Your task to perform on an android device: turn notification dots off Image 0: 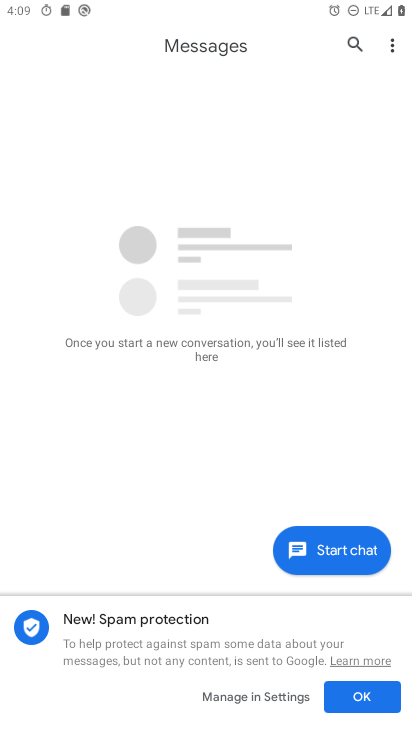
Step 0: press home button
Your task to perform on an android device: turn notification dots off Image 1: 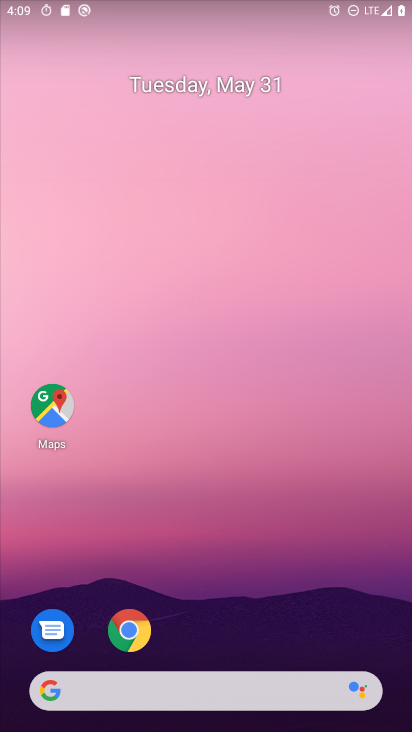
Step 1: drag from (260, 654) to (275, 11)
Your task to perform on an android device: turn notification dots off Image 2: 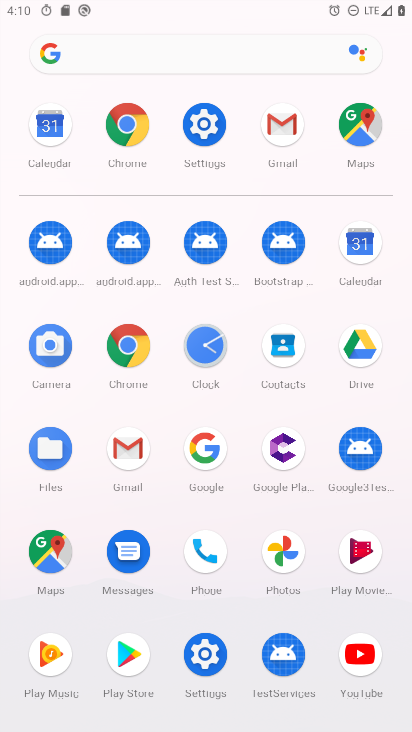
Step 2: click (204, 134)
Your task to perform on an android device: turn notification dots off Image 3: 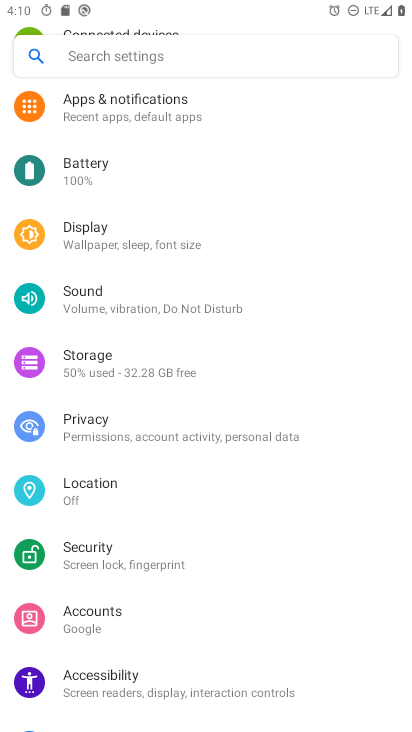
Step 3: drag from (158, 169) to (188, 615)
Your task to perform on an android device: turn notification dots off Image 4: 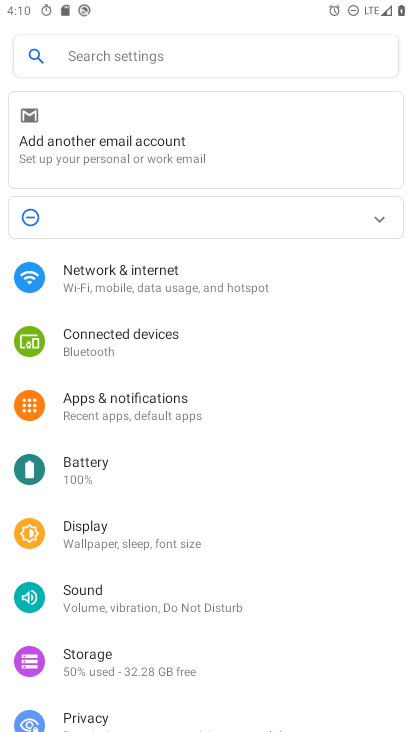
Step 4: click (170, 420)
Your task to perform on an android device: turn notification dots off Image 5: 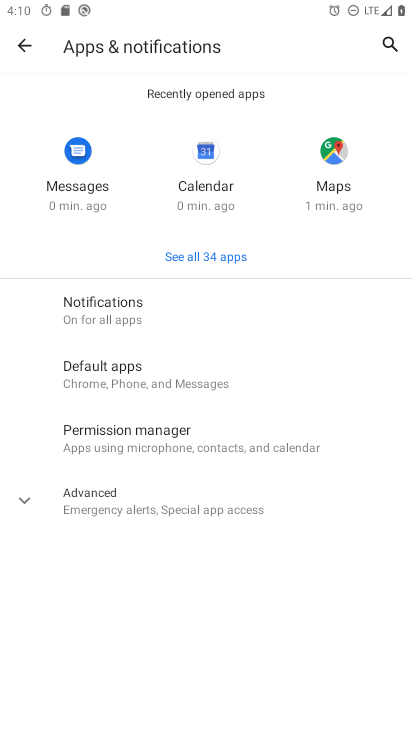
Step 5: drag from (192, 645) to (217, 339)
Your task to perform on an android device: turn notification dots off Image 6: 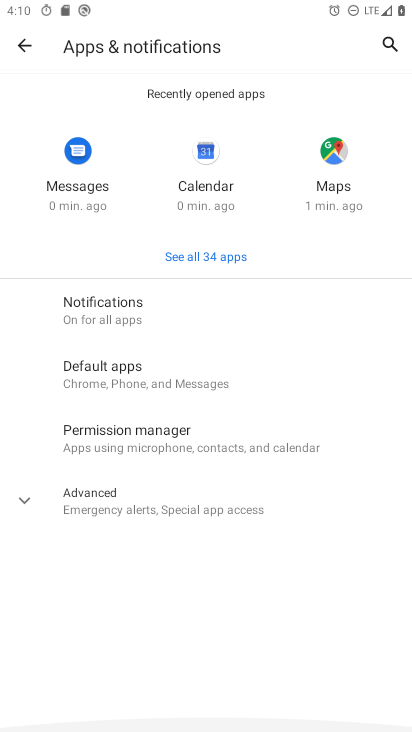
Step 6: click (147, 313)
Your task to perform on an android device: turn notification dots off Image 7: 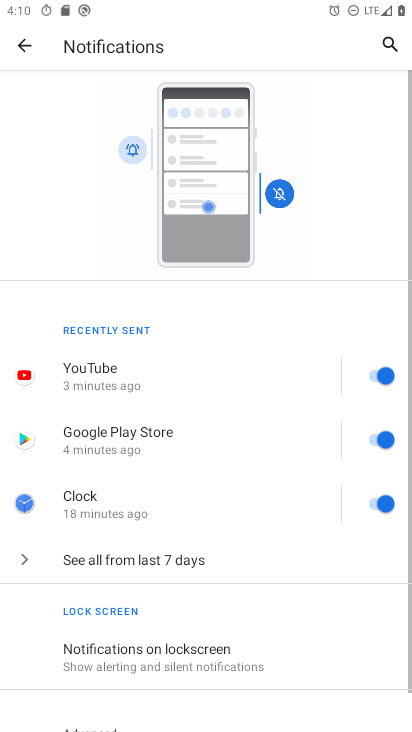
Step 7: drag from (228, 644) to (212, 152)
Your task to perform on an android device: turn notification dots off Image 8: 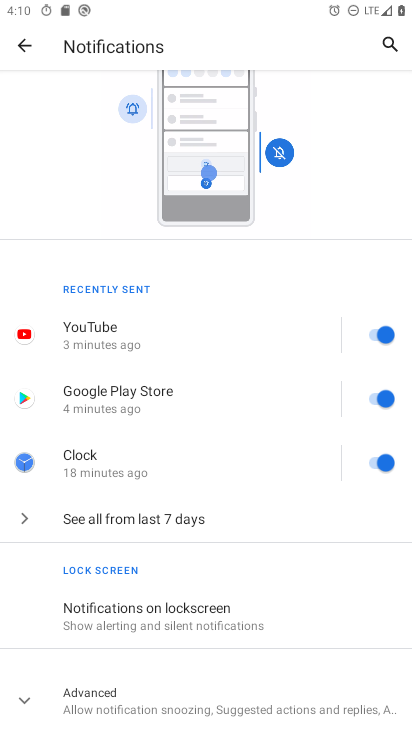
Step 8: click (162, 726)
Your task to perform on an android device: turn notification dots off Image 9: 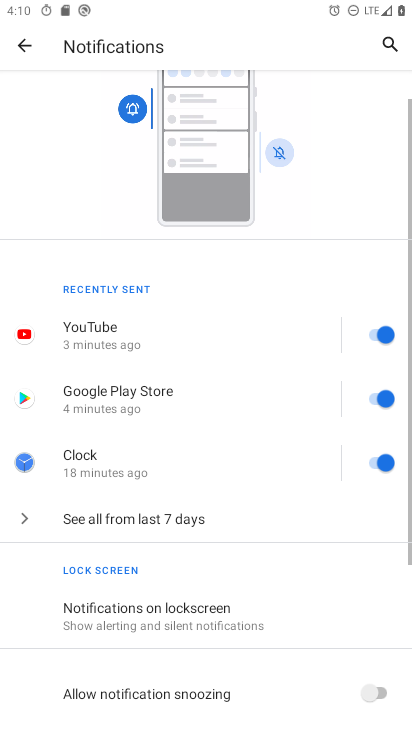
Step 9: task complete